Your task to perform on an android device: Search for pizza restaurants on Maps Image 0: 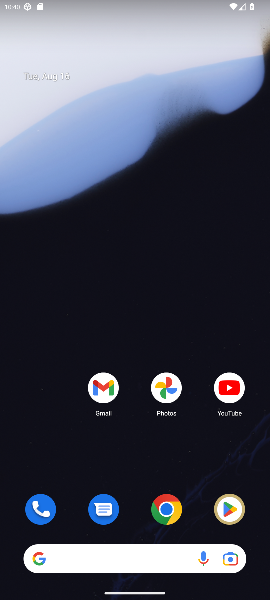
Step 0: drag from (213, 330) to (190, 6)
Your task to perform on an android device: Search for pizza restaurants on Maps Image 1: 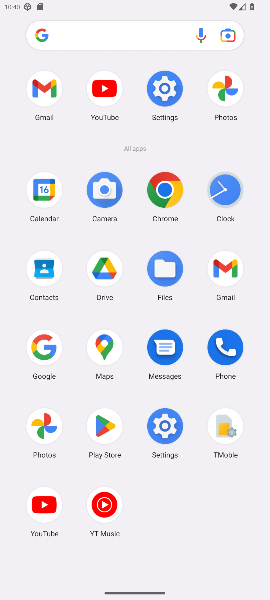
Step 1: click (103, 345)
Your task to perform on an android device: Search for pizza restaurants on Maps Image 2: 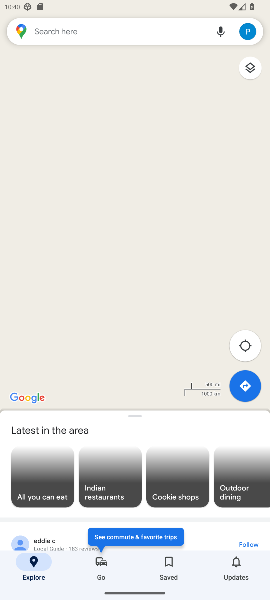
Step 2: click (121, 36)
Your task to perform on an android device: Search for pizza restaurants on Maps Image 3: 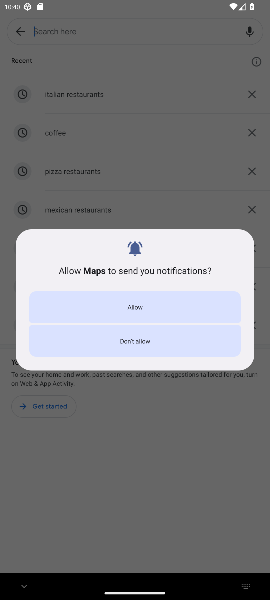
Step 3: click (189, 338)
Your task to perform on an android device: Search for pizza restaurants on Maps Image 4: 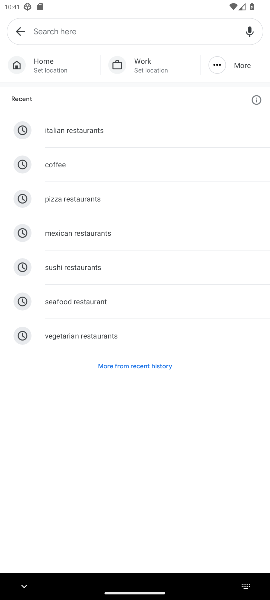
Step 4: click (102, 197)
Your task to perform on an android device: Search for pizza restaurants on Maps Image 5: 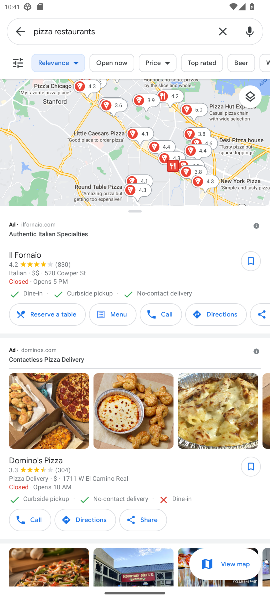
Step 5: task complete